Your task to perform on an android device: What's the weather today? Image 0: 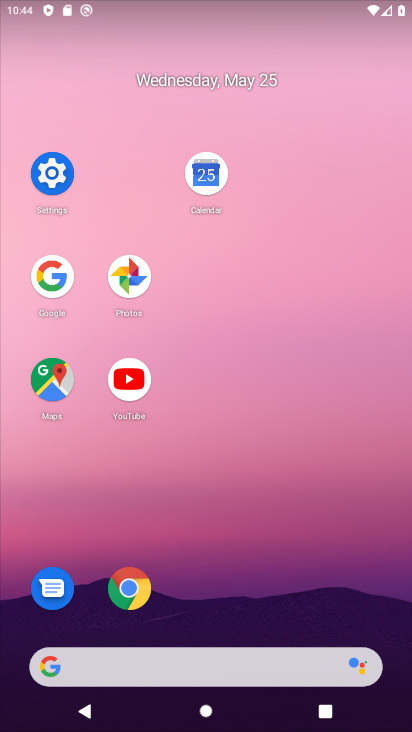
Step 0: click (59, 291)
Your task to perform on an android device: What's the weather today? Image 1: 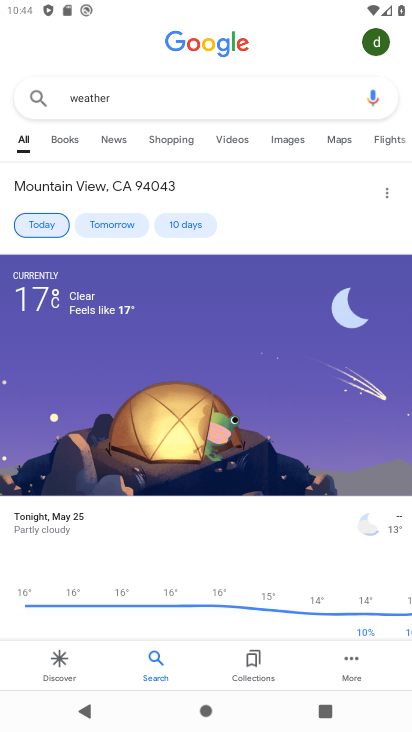
Step 1: task complete